Your task to perform on an android device: set the stopwatch Image 0: 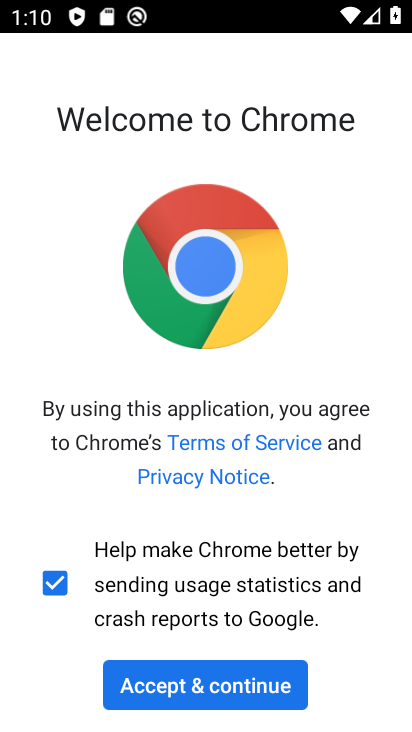
Step 0: task complete